Your task to perform on an android device: Open Amazon Image 0: 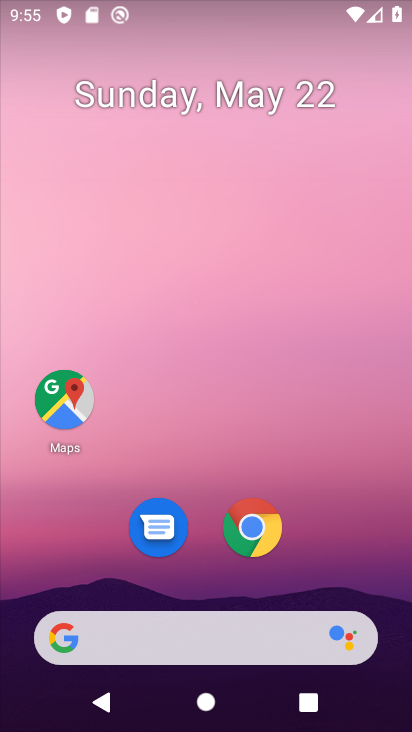
Step 0: click (270, 533)
Your task to perform on an android device: Open Amazon Image 1: 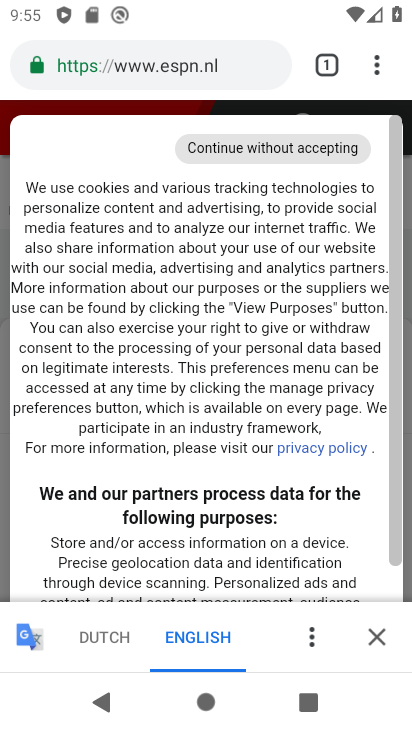
Step 1: click (212, 62)
Your task to perform on an android device: Open Amazon Image 2: 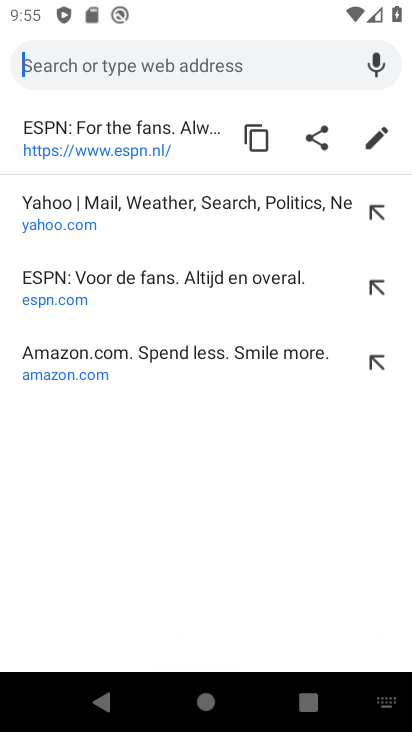
Step 2: click (254, 353)
Your task to perform on an android device: Open Amazon Image 3: 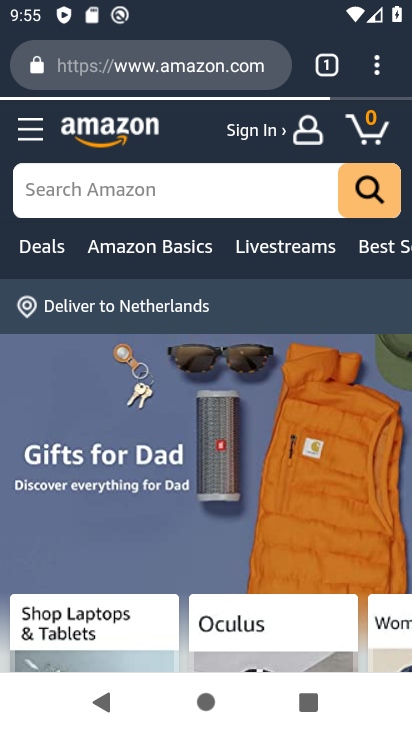
Step 3: task complete